Your task to perform on an android device: Show me popular videos on Youtube Image 0: 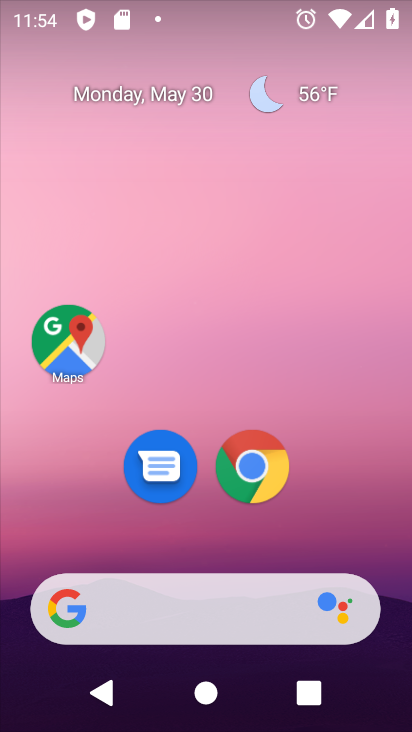
Step 0: drag from (188, 603) to (140, 0)
Your task to perform on an android device: Show me popular videos on Youtube Image 1: 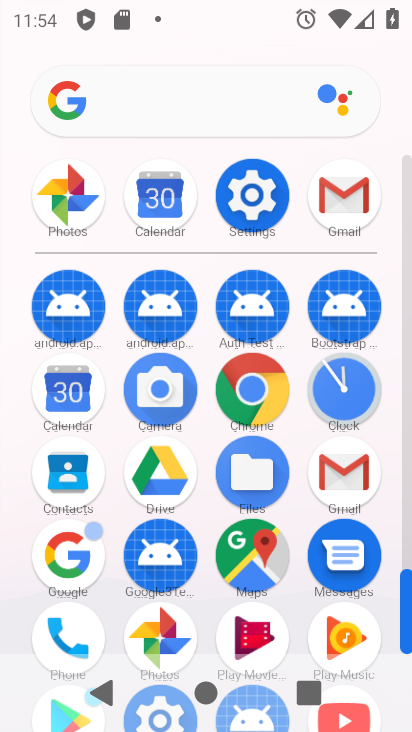
Step 1: drag from (292, 593) to (240, 149)
Your task to perform on an android device: Show me popular videos on Youtube Image 2: 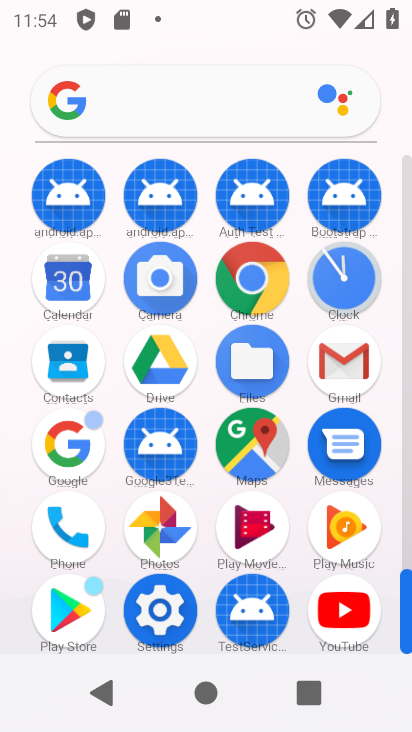
Step 2: click (359, 608)
Your task to perform on an android device: Show me popular videos on Youtube Image 3: 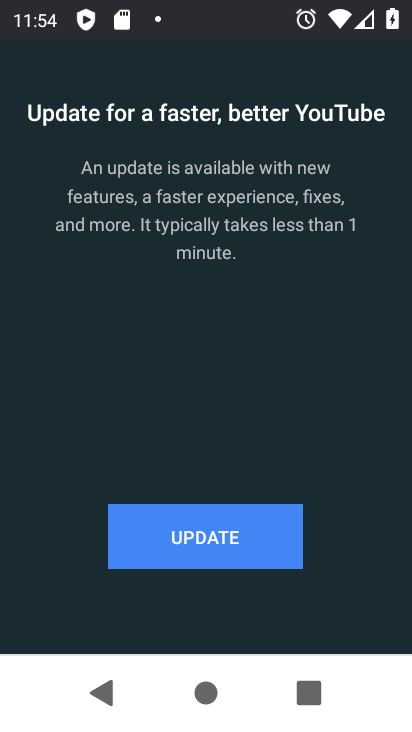
Step 3: click (261, 552)
Your task to perform on an android device: Show me popular videos on Youtube Image 4: 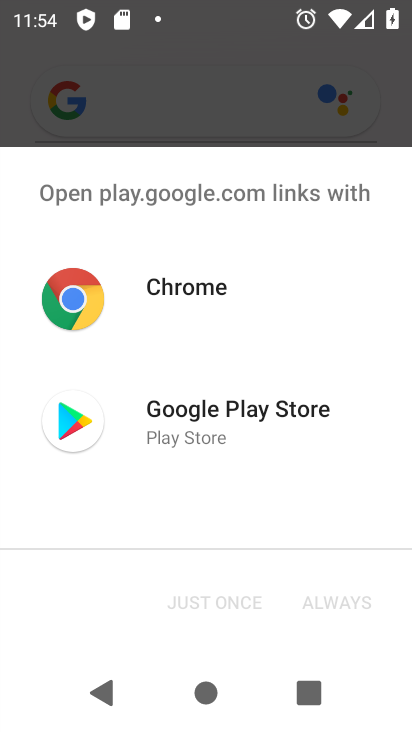
Step 4: click (160, 412)
Your task to perform on an android device: Show me popular videos on Youtube Image 5: 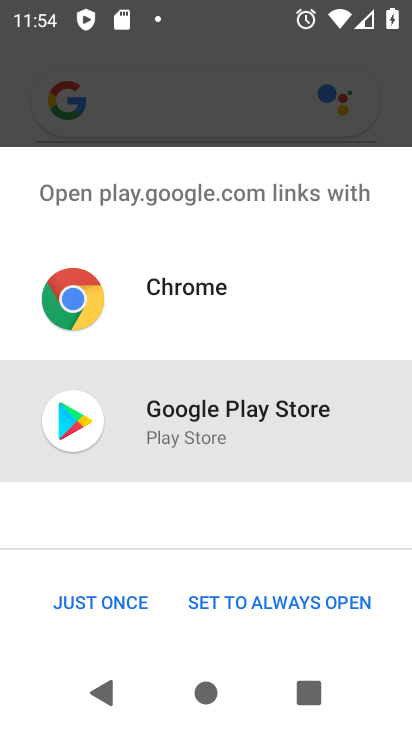
Step 5: click (81, 594)
Your task to perform on an android device: Show me popular videos on Youtube Image 6: 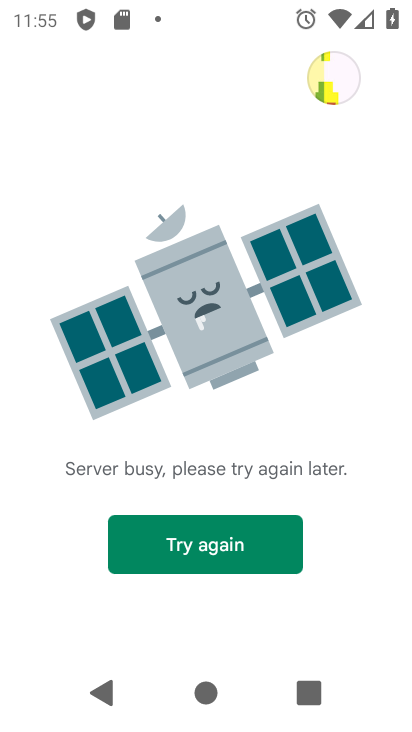
Step 6: task complete